Your task to perform on an android device: check battery use Image 0: 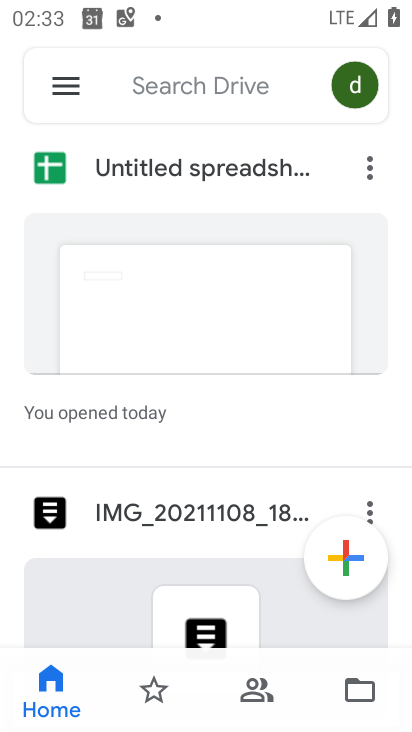
Step 0: press back button
Your task to perform on an android device: check battery use Image 1: 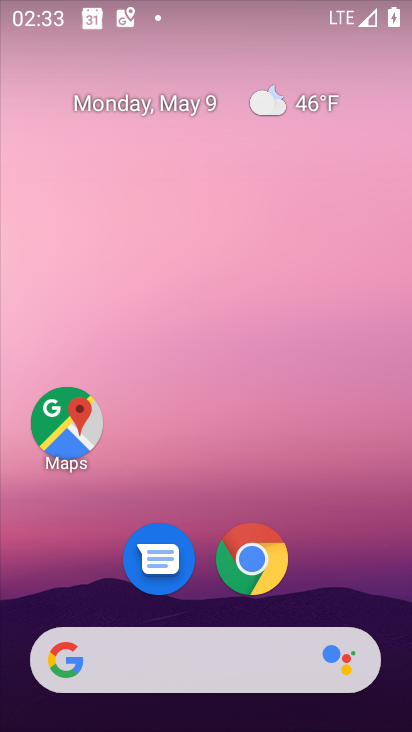
Step 1: drag from (329, 548) to (291, 21)
Your task to perform on an android device: check battery use Image 2: 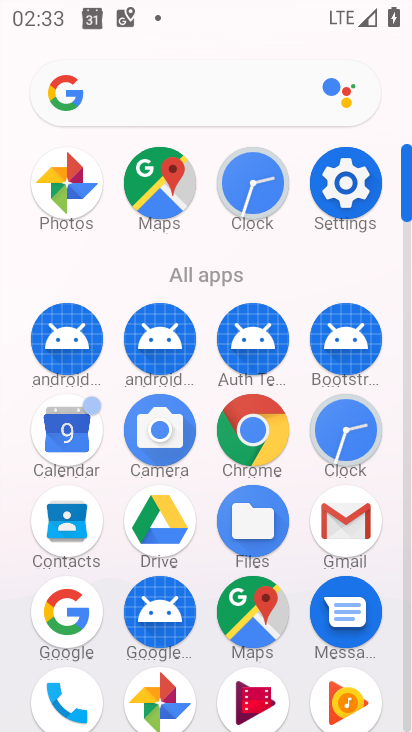
Step 2: click (344, 184)
Your task to perform on an android device: check battery use Image 3: 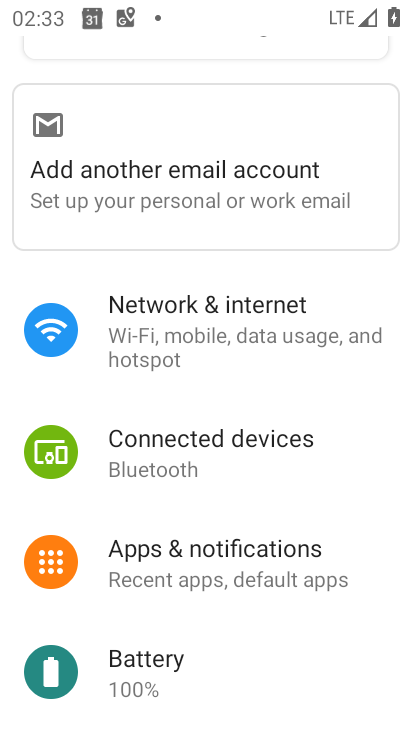
Step 3: drag from (198, 646) to (284, 420)
Your task to perform on an android device: check battery use Image 4: 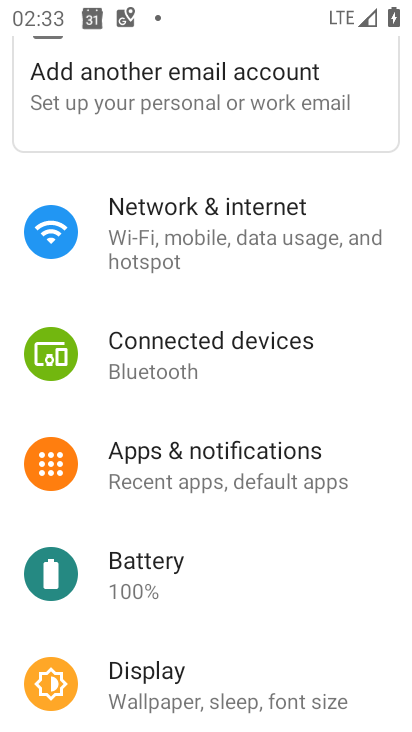
Step 4: click (147, 554)
Your task to perform on an android device: check battery use Image 5: 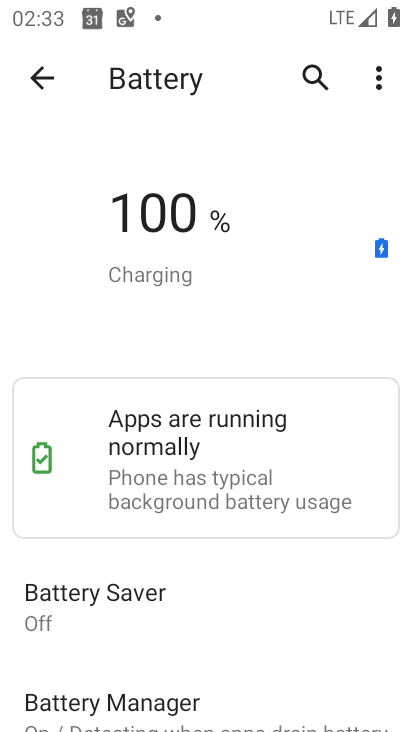
Step 5: click (377, 73)
Your task to perform on an android device: check battery use Image 6: 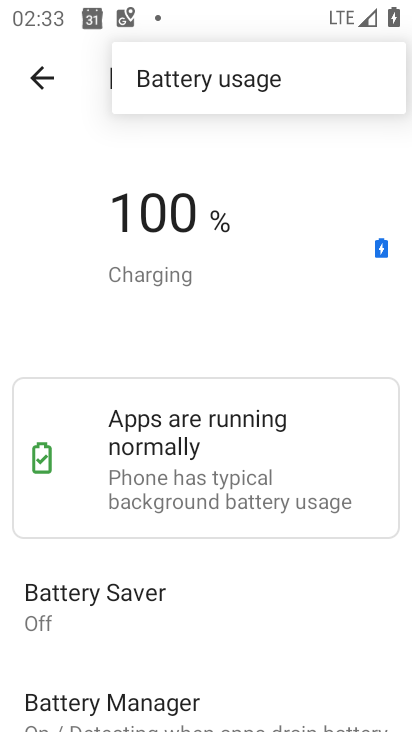
Step 6: click (273, 70)
Your task to perform on an android device: check battery use Image 7: 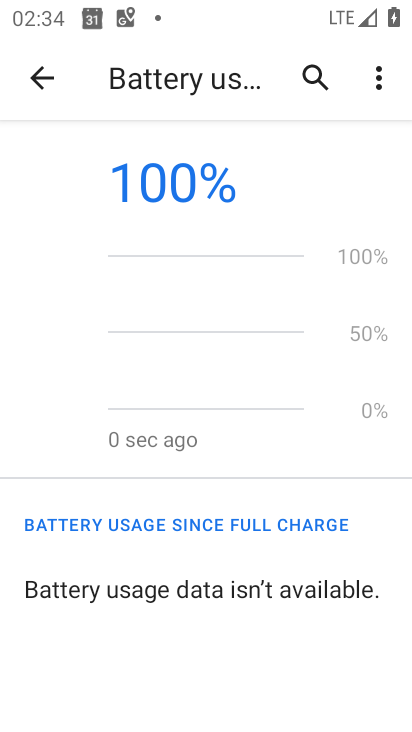
Step 7: task complete